Your task to perform on an android device: remove spam from my inbox in the gmail app Image 0: 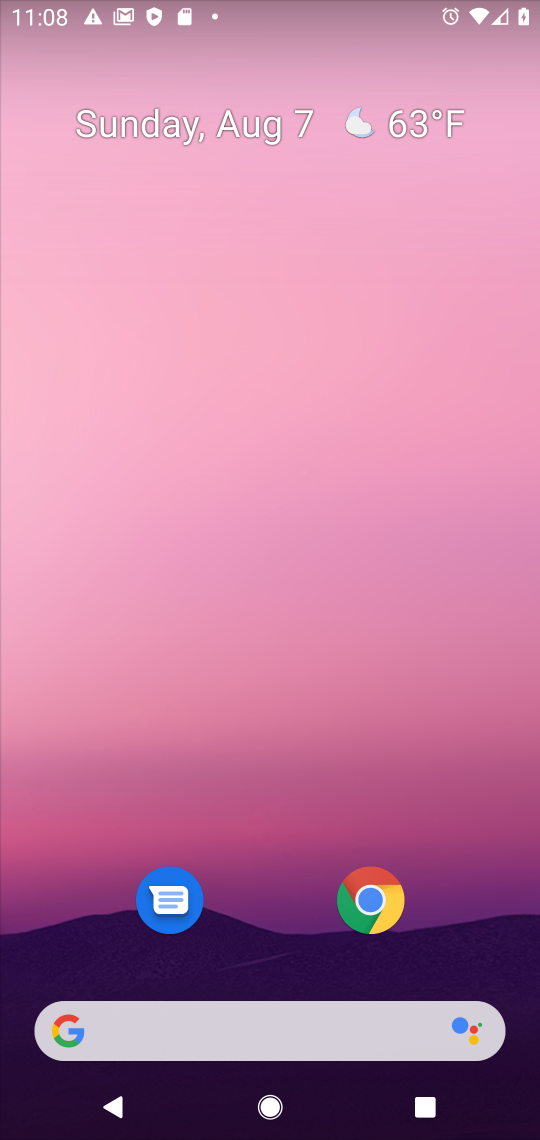
Step 0: press home button
Your task to perform on an android device: remove spam from my inbox in the gmail app Image 1: 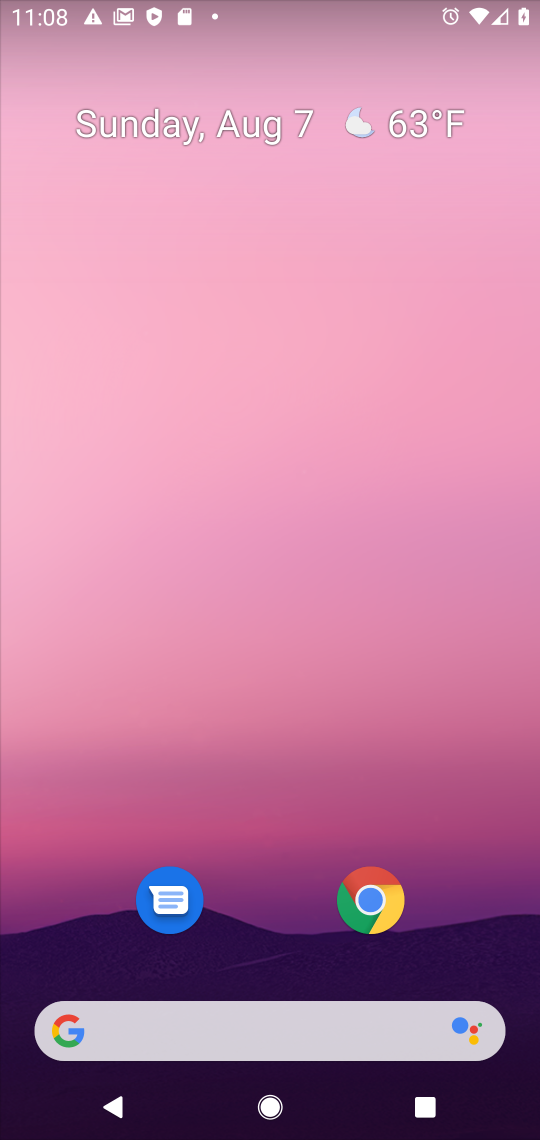
Step 1: drag from (270, 968) to (262, 172)
Your task to perform on an android device: remove spam from my inbox in the gmail app Image 2: 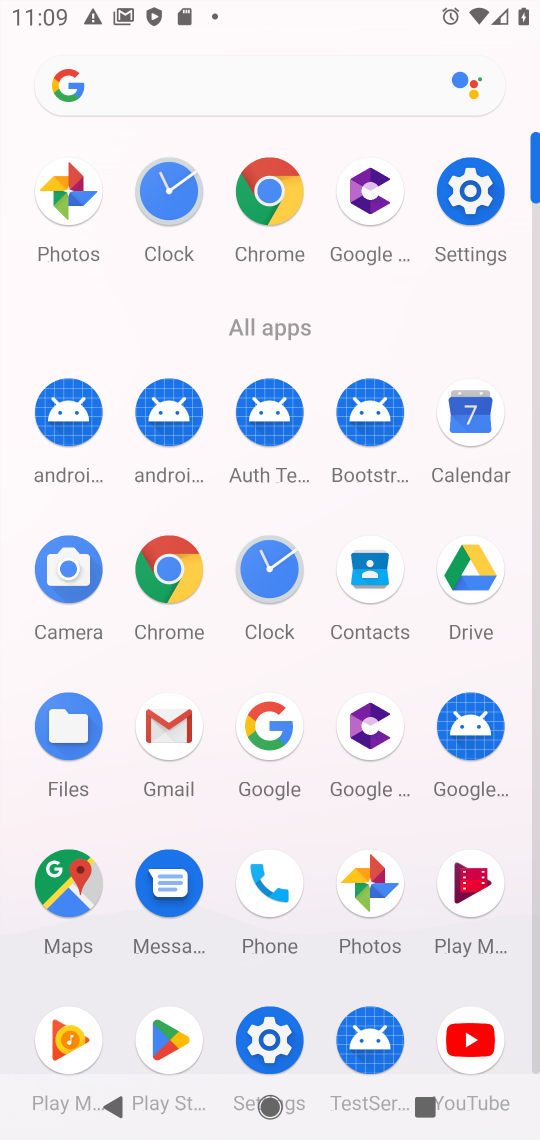
Step 2: click (167, 711)
Your task to perform on an android device: remove spam from my inbox in the gmail app Image 3: 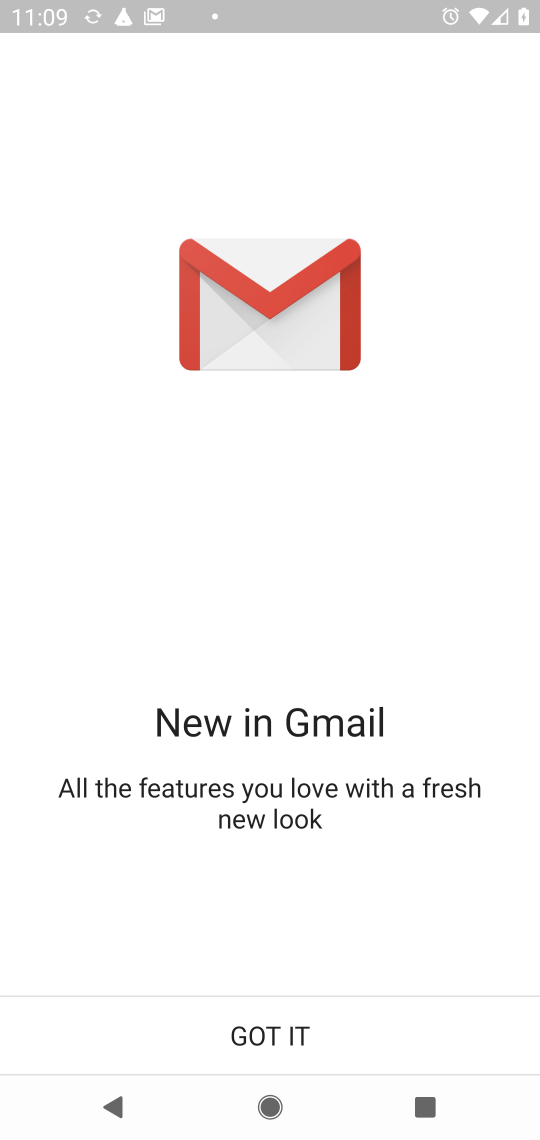
Step 3: click (281, 1034)
Your task to perform on an android device: remove spam from my inbox in the gmail app Image 4: 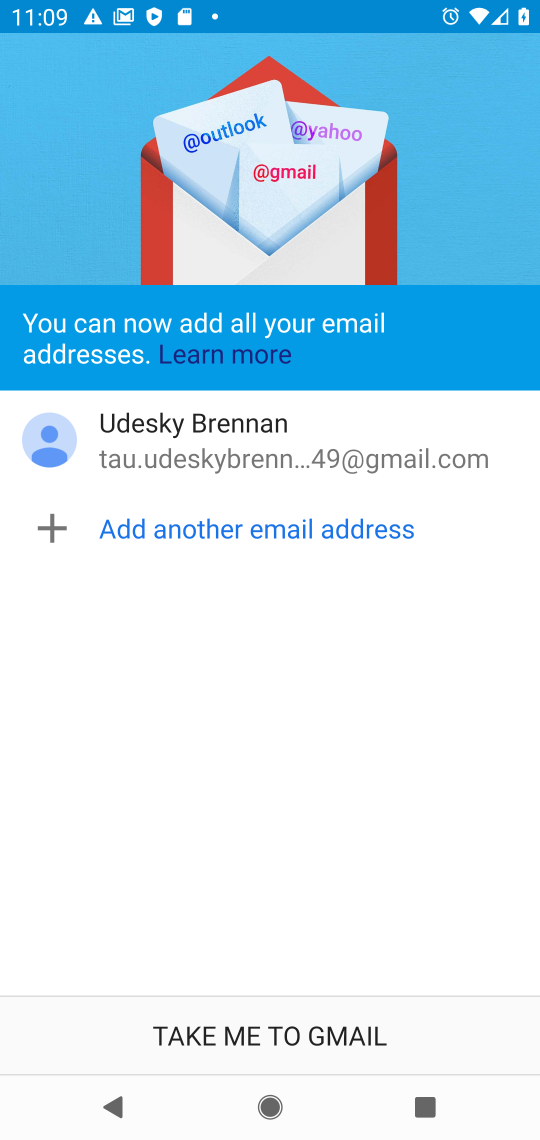
Step 4: click (266, 1040)
Your task to perform on an android device: remove spam from my inbox in the gmail app Image 5: 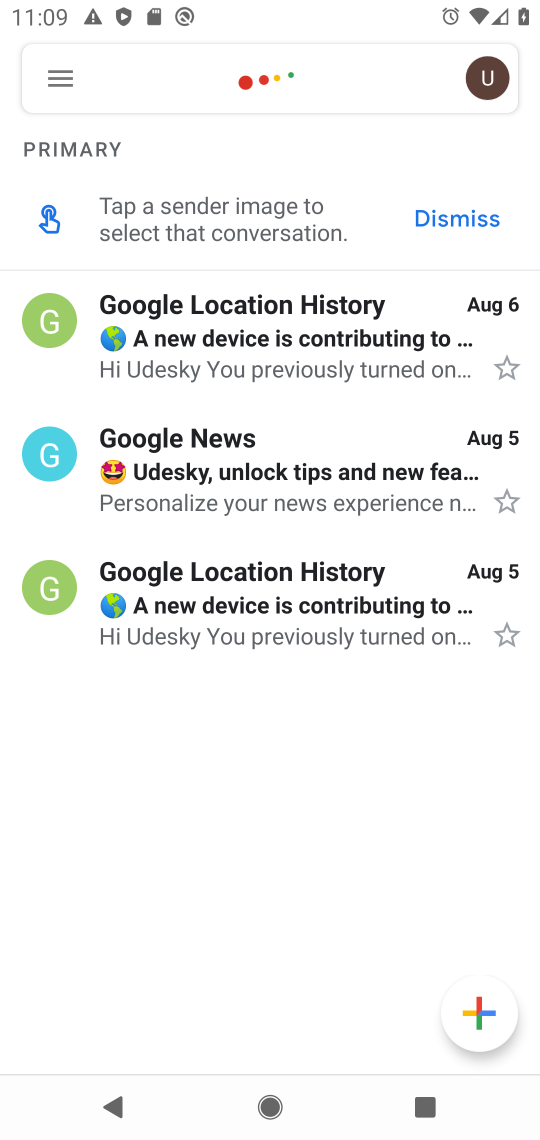
Step 5: click (56, 73)
Your task to perform on an android device: remove spam from my inbox in the gmail app Image 6: 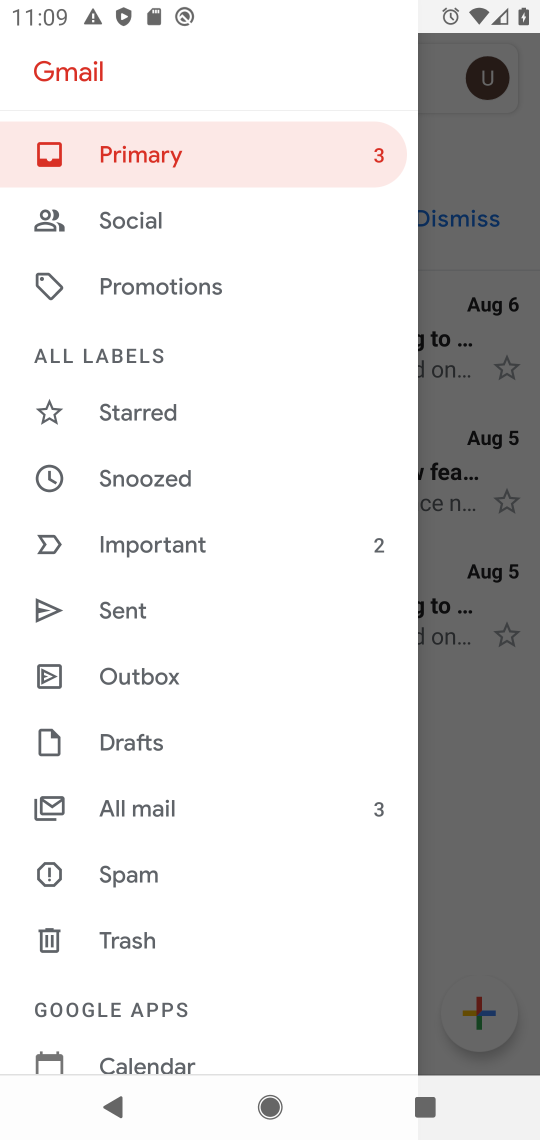
Step 6: click (159, 878)
Your task to perform on an android device: remove spam from my inbox in the gmail app Image 7: 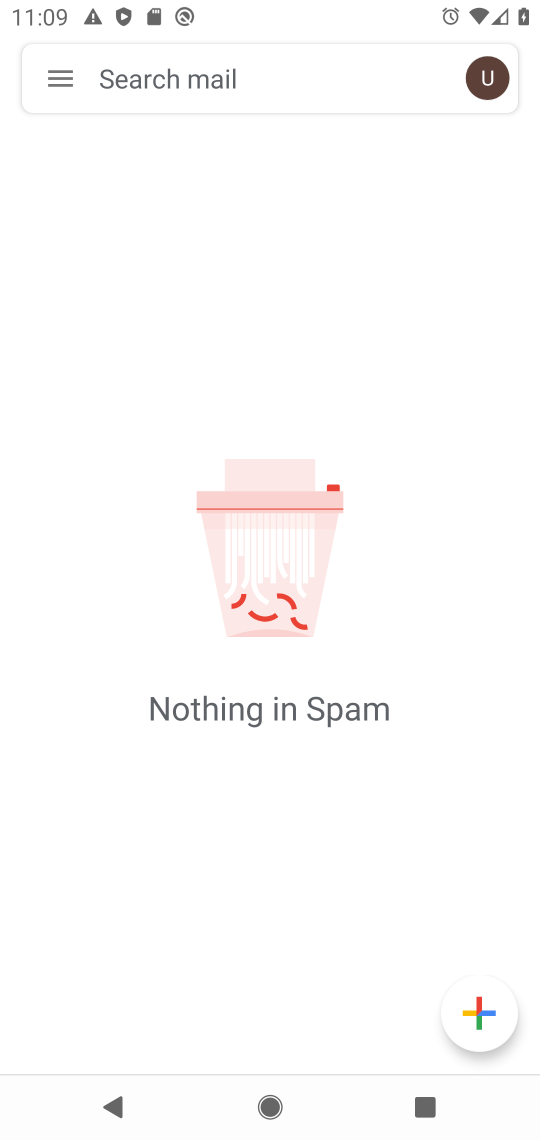
Step 7: task complete